Your task to perform on an android device: Open Wikipedia Image 0: 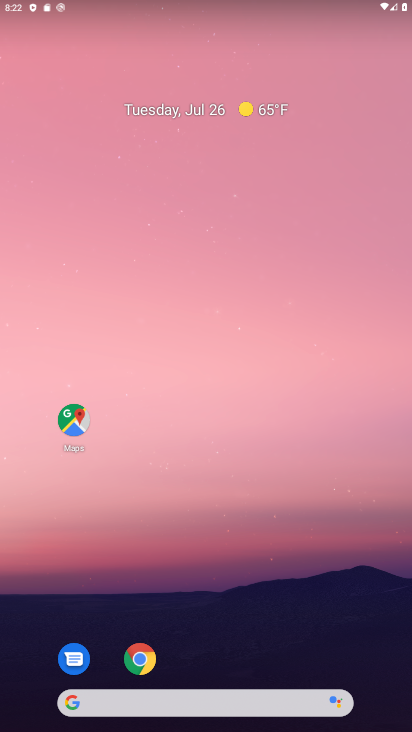
Step 0: click (142, 671)
Your task to perform on an android device: Open Wikipedia Image 1: 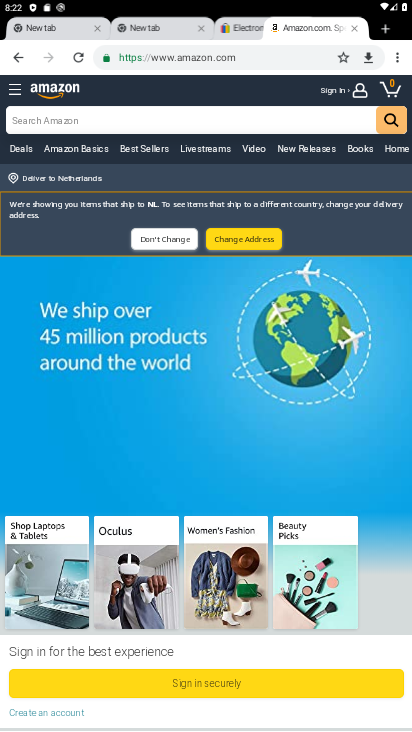
Step 1: click (351, 32)
Your task to perform on an android device: Open Wikipedia Image 2: 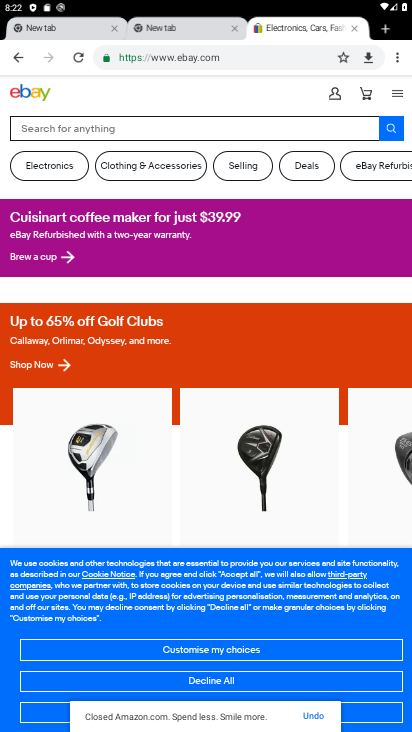
Step 2: click (361, 31)
Your task to perform on an android device: Open Wikipedia Image 3: 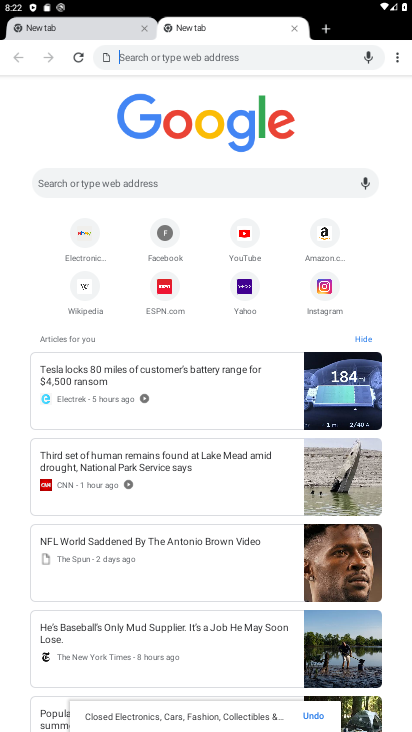
Step 3: click (297, 24)
Your task to perform on an android device: Open Wikipedia Image 4: 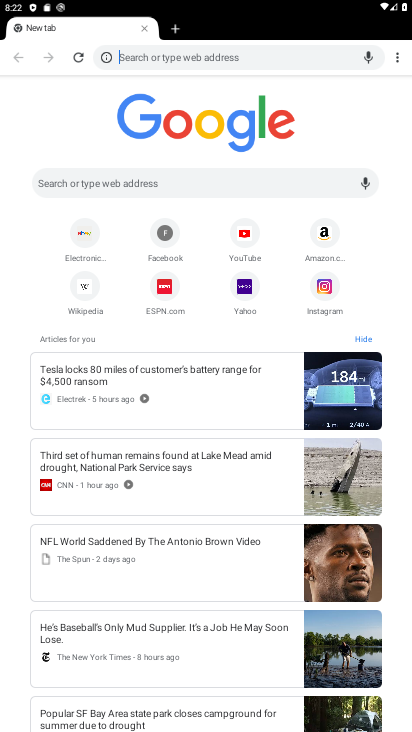
Step 4: click (90, 312)
Your task to perform on an android device: Open Wikipedia Image 5: 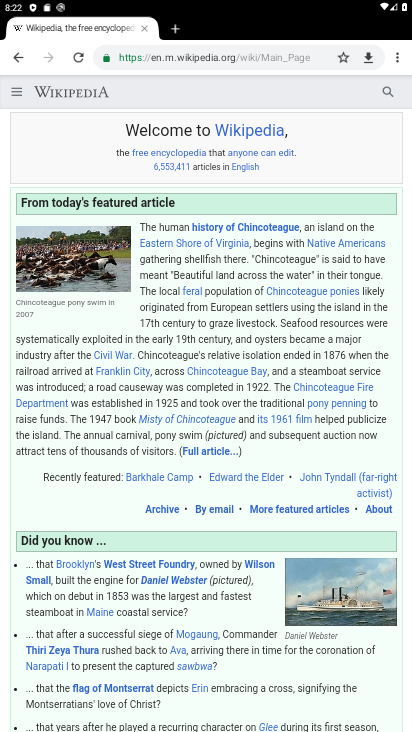
Step 5: task complete